Your task to perform on an android device: turn off notifications in google photos Image 0: 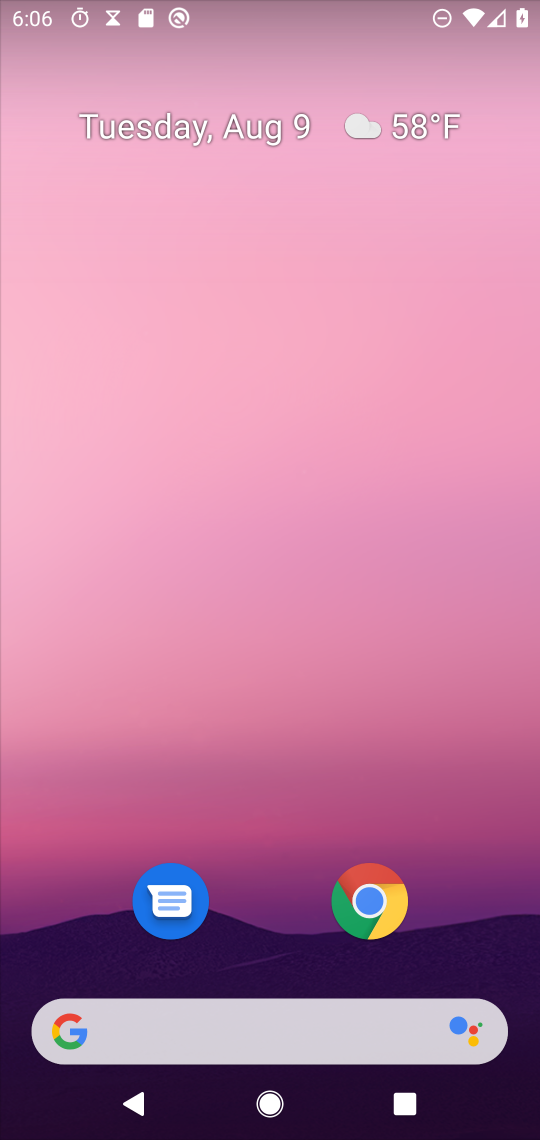
Step 0: drag from (281, 907) to (417, 47)
Your task to perform on an android device: turn off notifications in google photos Image 1: 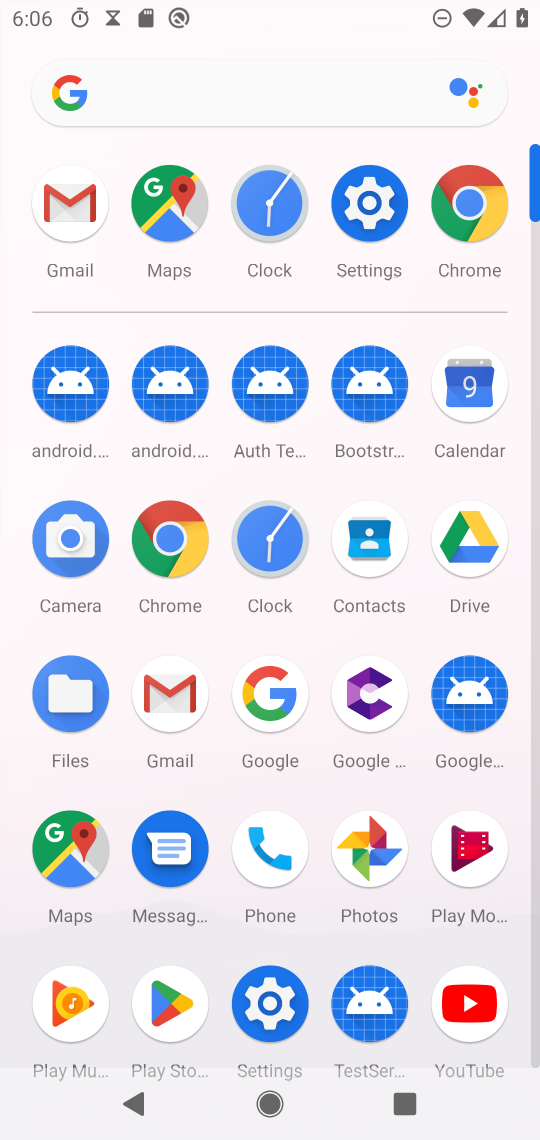
Step 1: click (359, 837)
Your task to perform on an android device: turn off notifications in google photos Image 2: 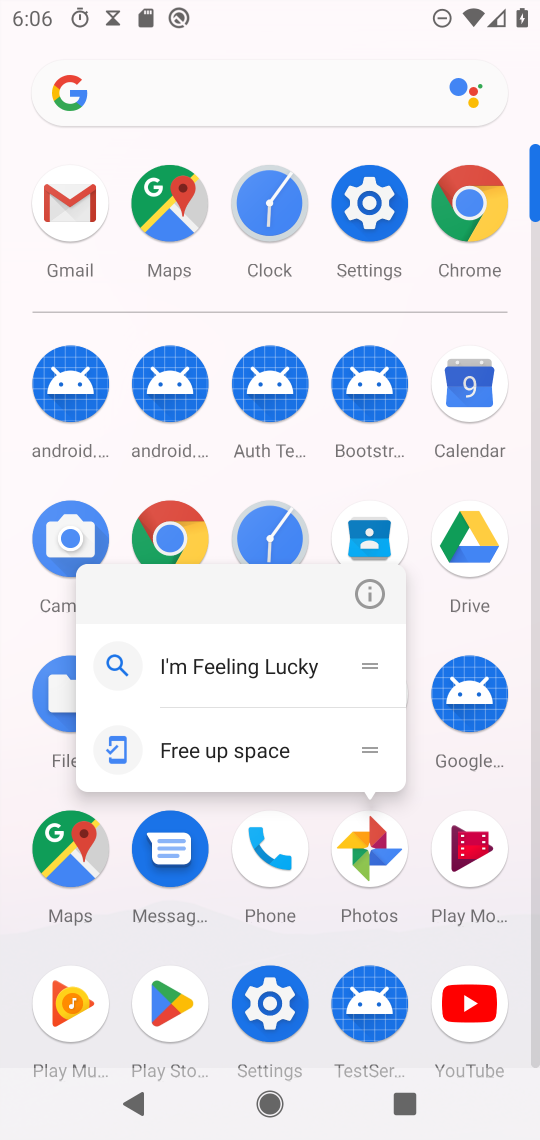
Step 2: click (359, 591)
Your task to perform on an android device: turn off notifications in google photos Image 3: 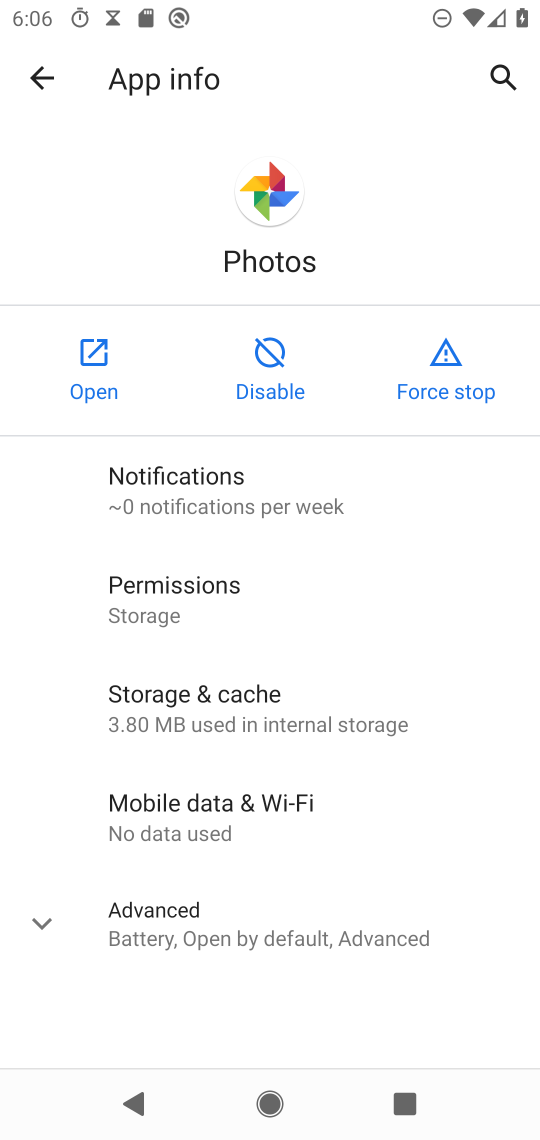
Step 3: click (266, 479)
Your task to perform on an android device: turn off notifications in google photos Image 4: 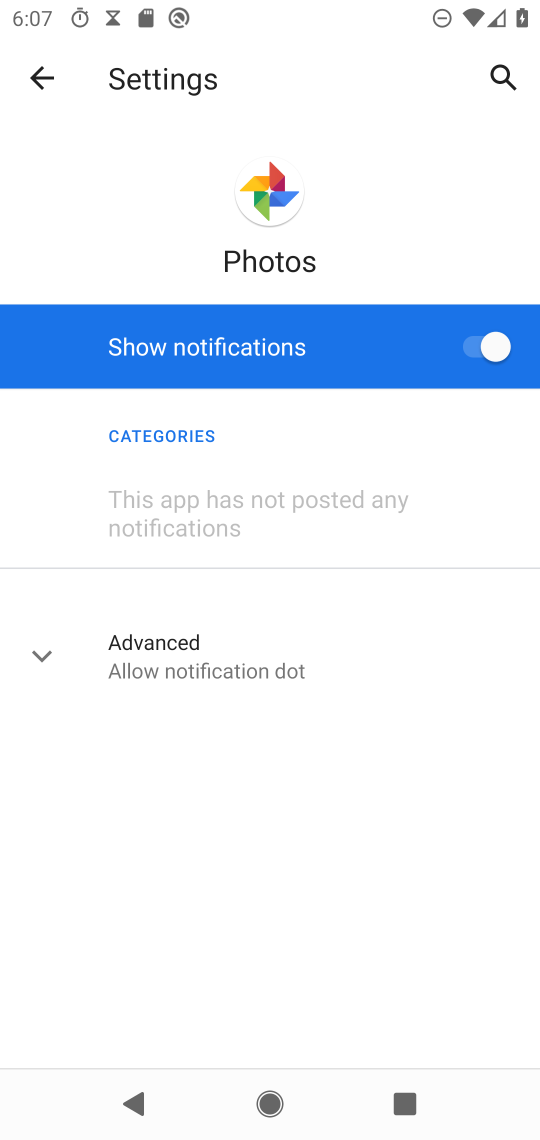
Step 4: click (330, 326)
Your task to perform on an android device: turn off notifications in google photos Image 5: 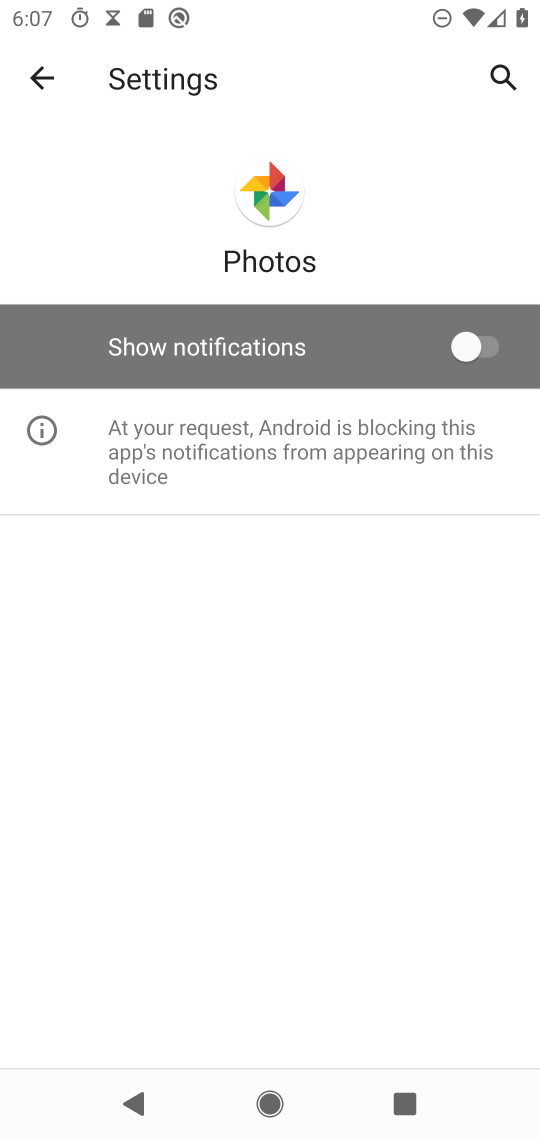
Step 5: task complete